Your task to perform on an android device: Find coffee shops on Maps Image 0: 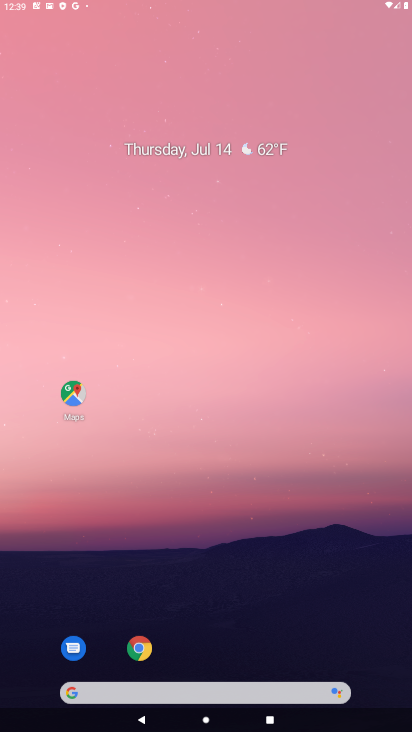
Step 0: drag from (309, 231) to (257, 42)
Your task to perform on an android device: Find coffee shops on Maps Image 1: 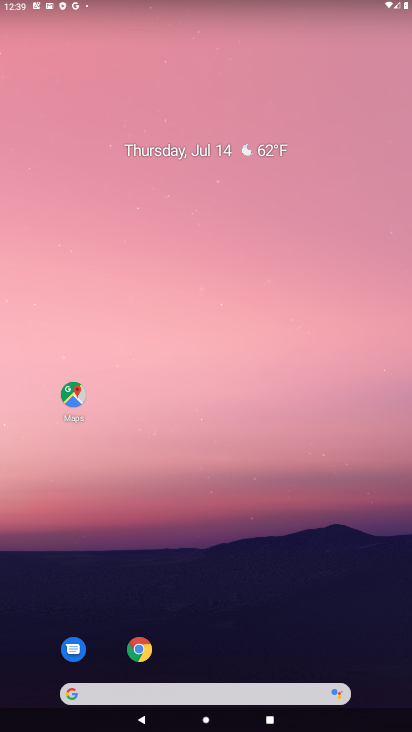
Step 1: drag from (377, 644) to (244, 43)
Your task to perform on an android device: Find coffee shops on Maps Image 2: 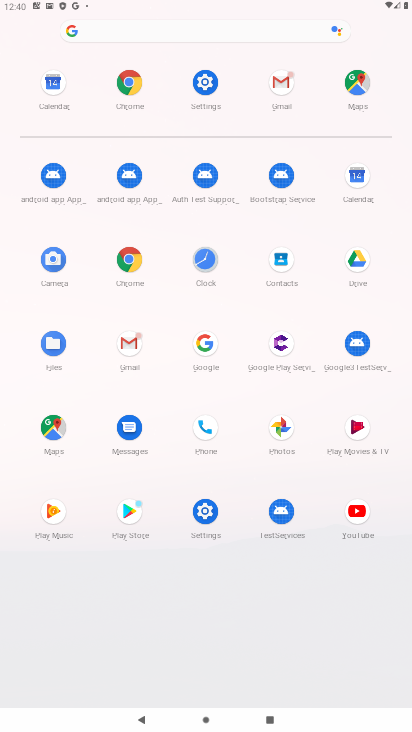
Step 2: click (48, 430)
Your task to perform on an android device: Find coffee shops on Maps Image 3: 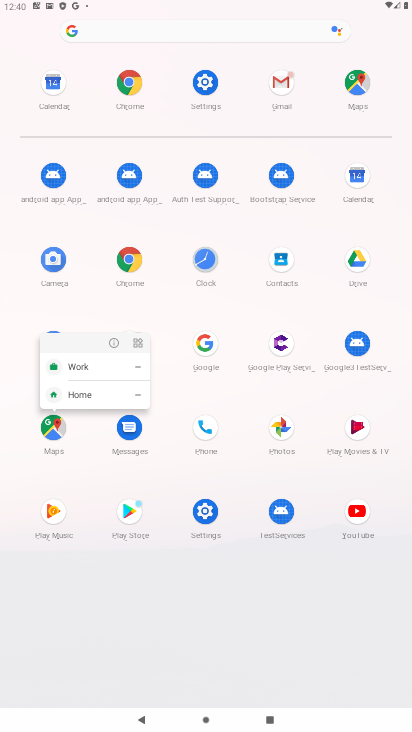
Step 3: click (48, 430)
Your task to perform on an android device: Find coffee shops on Maps Image 4: 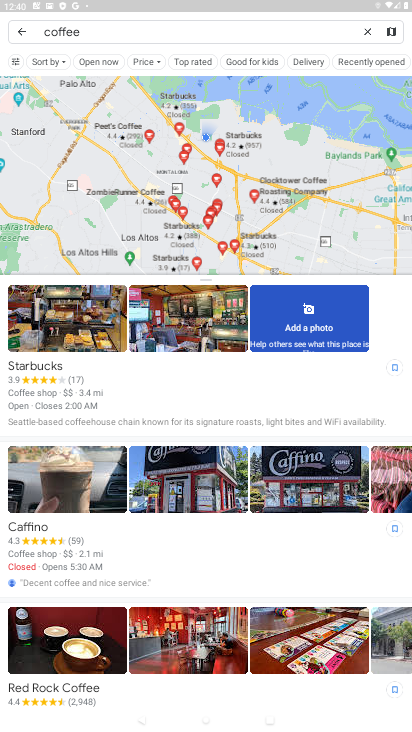
Step 4: task complete